Your task to perform on an android device: toggle notifications settings in the gmail app Image 0: 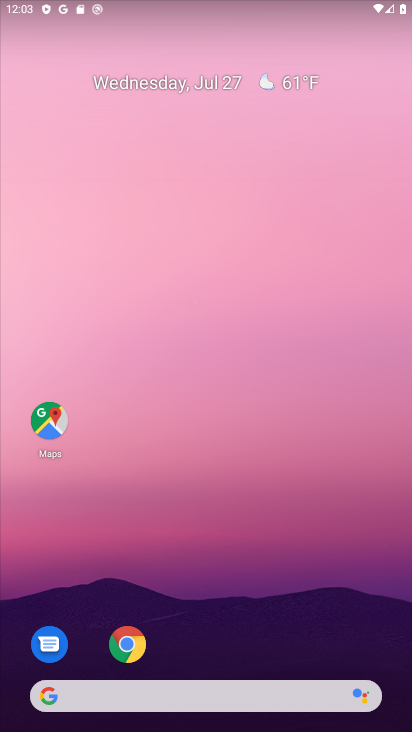
Step 0: drag from (191, 656) to (222, 207)
Your task to perform on an android device: toggle notifications settings in the gmail app Image 1: 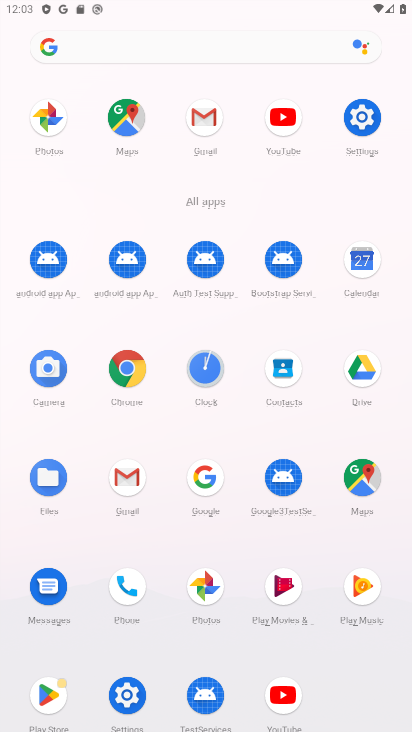
Step 1: click (138, 474)
Your task to perform on an android device: toggle notifications settings in the gmail app Image 2: 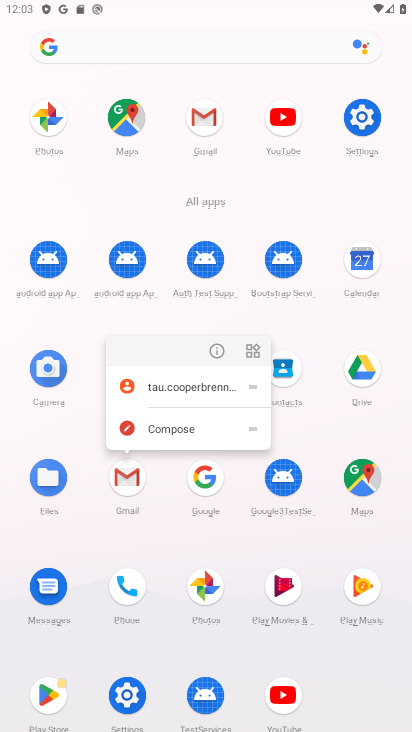
Step 2: click (221, 352)
Your task to perform on an android device: toggle notifications settings in the gmail app Image 3: 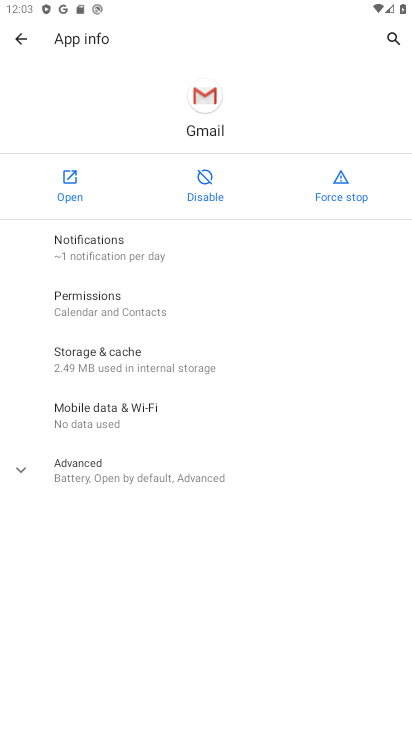
Step 3: click (72, 203)
Your task to perform on an android device: toggle notifications settings in the gmail app Image 4: 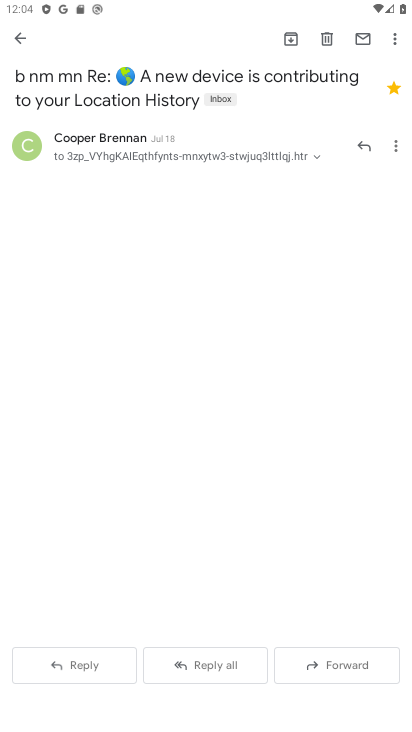
Step 4: drag from (78, 525) to (163, 300)
Your task to perform on an android device: toggle notifications settings in the gmail app Image 5: 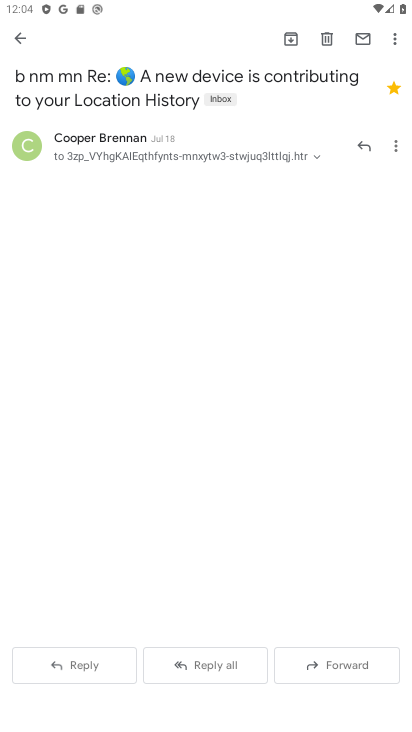
Step 5: drag from (174, 408) to (293, 203)
Your task to perform on an android device: toggle notifications settings in the gmail app Image 6: 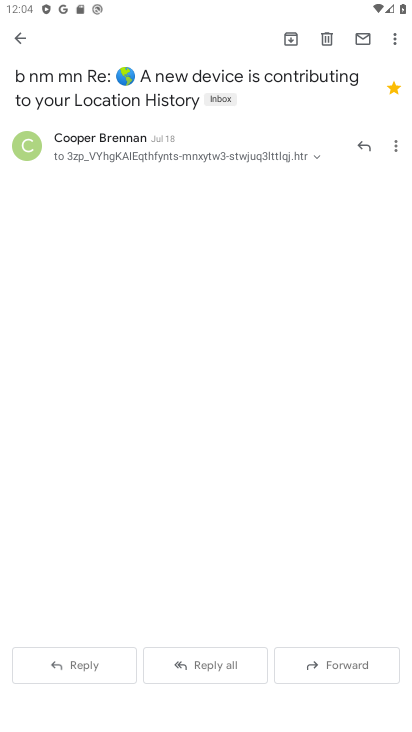
Step 6: click (19, 37)
Your task to perform on an android device: toggle notifications settings in the gmail app Image 7: 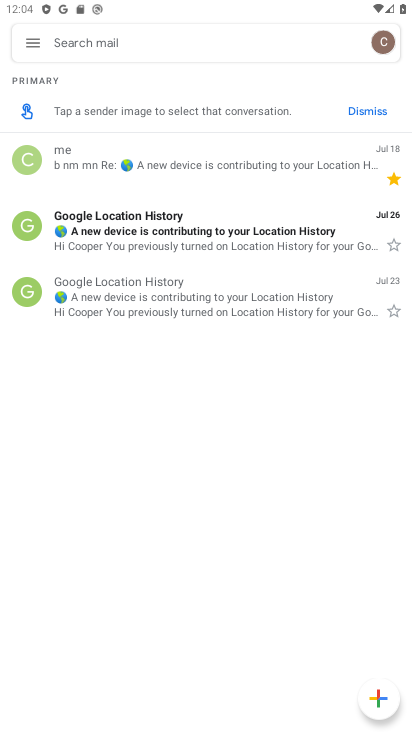
Step 7: click (21, 45)
Your task to perform on an android device: toggle notifications settings in the gmail app Image 8: 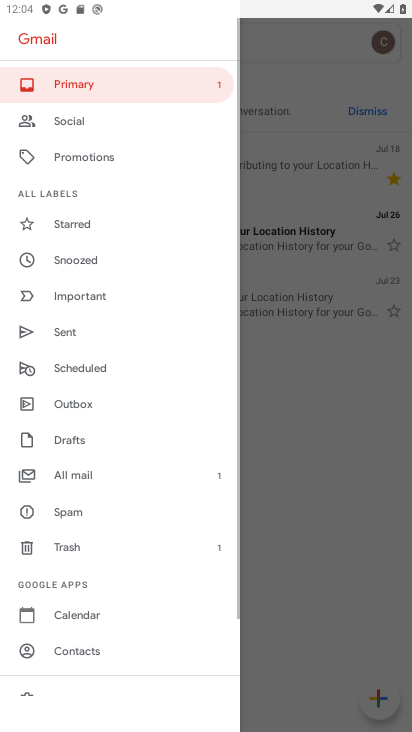
Step 8: drag from (95, 577) to (164, 309)
Your task to perform on an android device: toggle notifications settings in the gmail app Image 9: 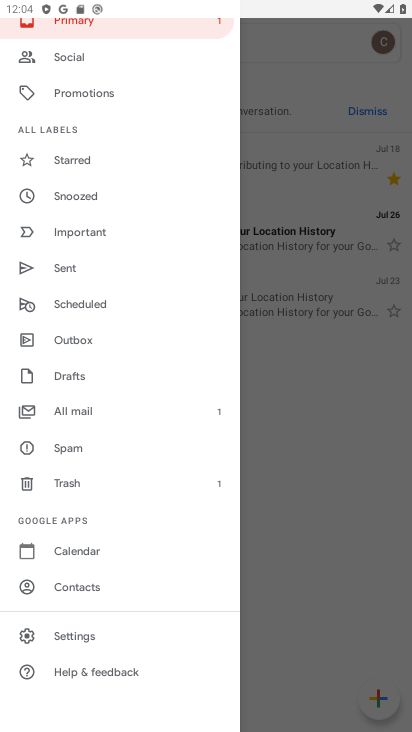
Step 9: click (78, 633)
Your task to perform on an android device: toggle notifications settings in the gmail app Image 10: 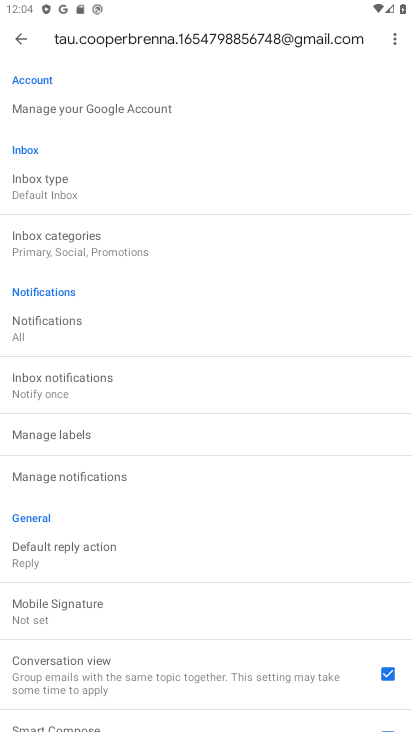
Step 10: click (76, 467)
Your task to perform on an android device: toggle notifications settings in the gmail app Image 11: 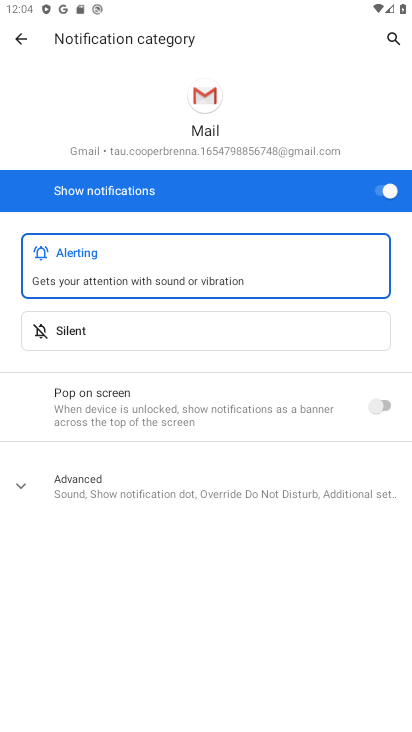
Step 11: click (368, 182)
Your task to perform on an android device: toggle notifications settings in the gmail app Image 12: 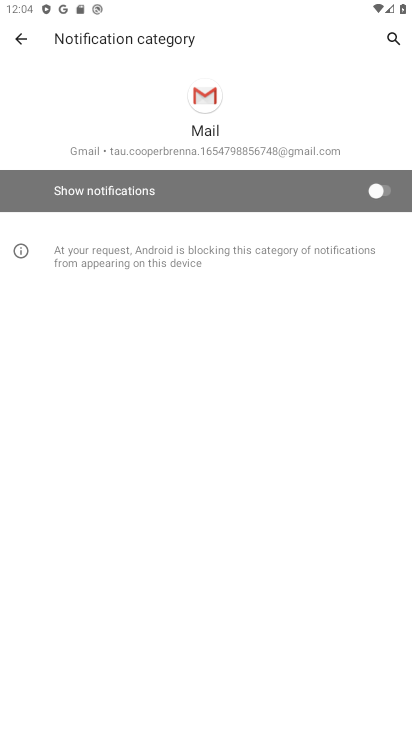
Step 12: task complete